Your task to perform on an android device: see sites visited before in the chrome app Image 0: 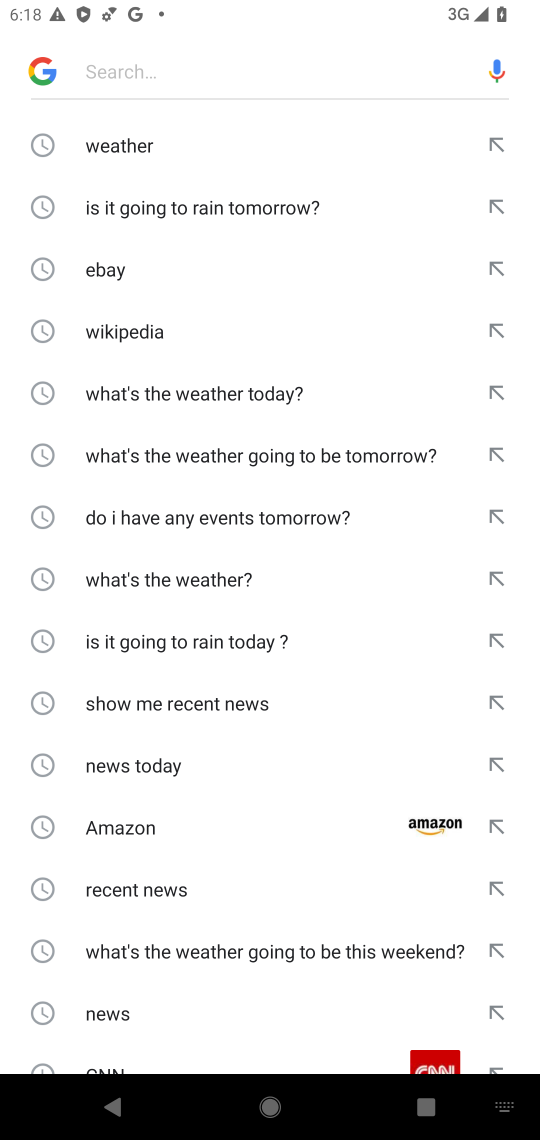
Step 0: press home button
Your task to perform on an android device: see sites visited before in the chrome app Image 1: 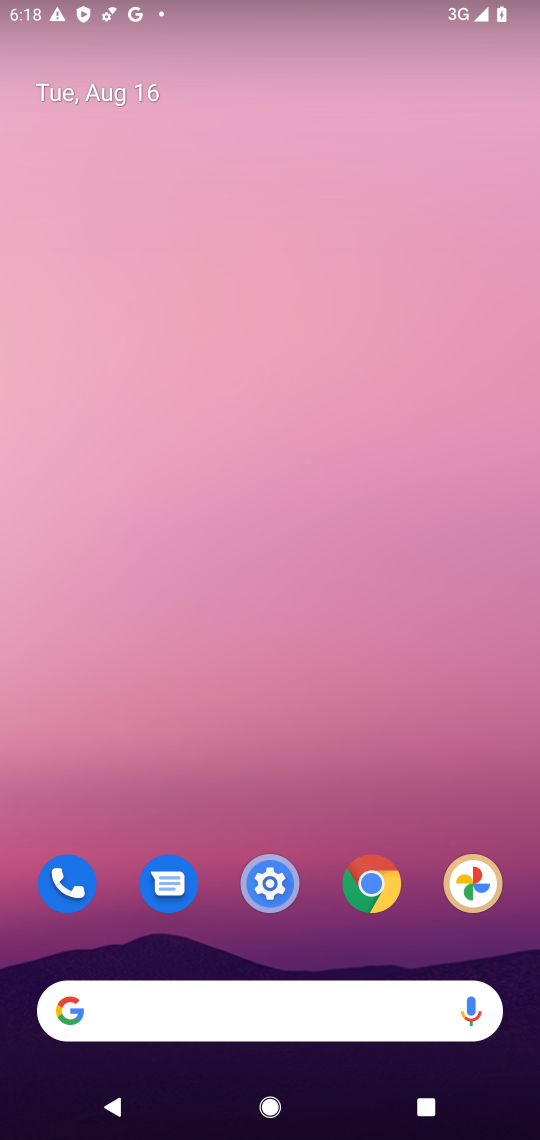
Step 1: click (375, 883)
Your task to perform on an android device: see sites visited before in the chrome app Image 2: 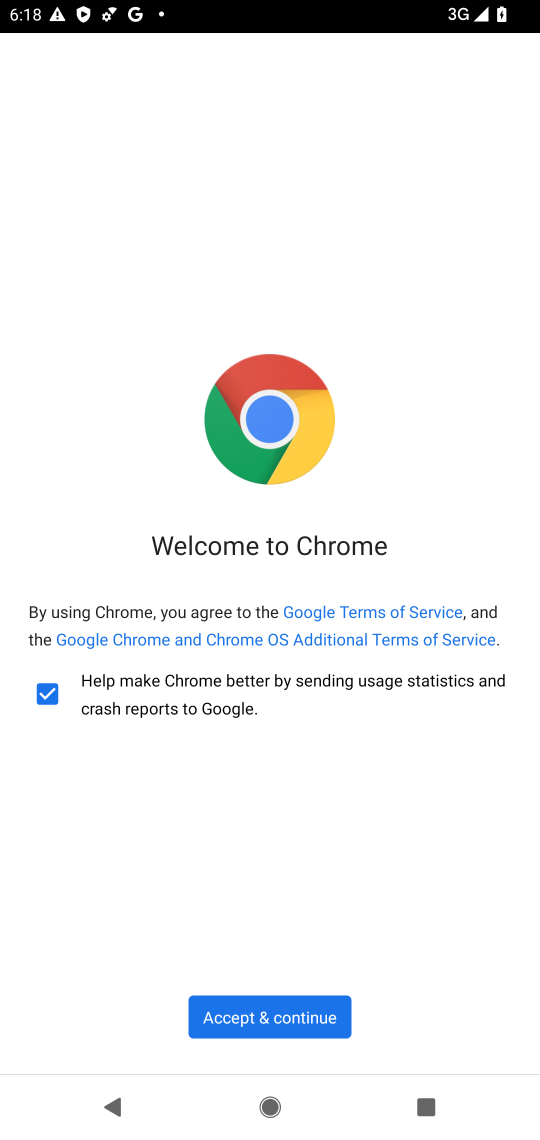
Step 2: click (298, 1027)
Your task to perform on an android device: see sites visited before in the chrome app Image 3: 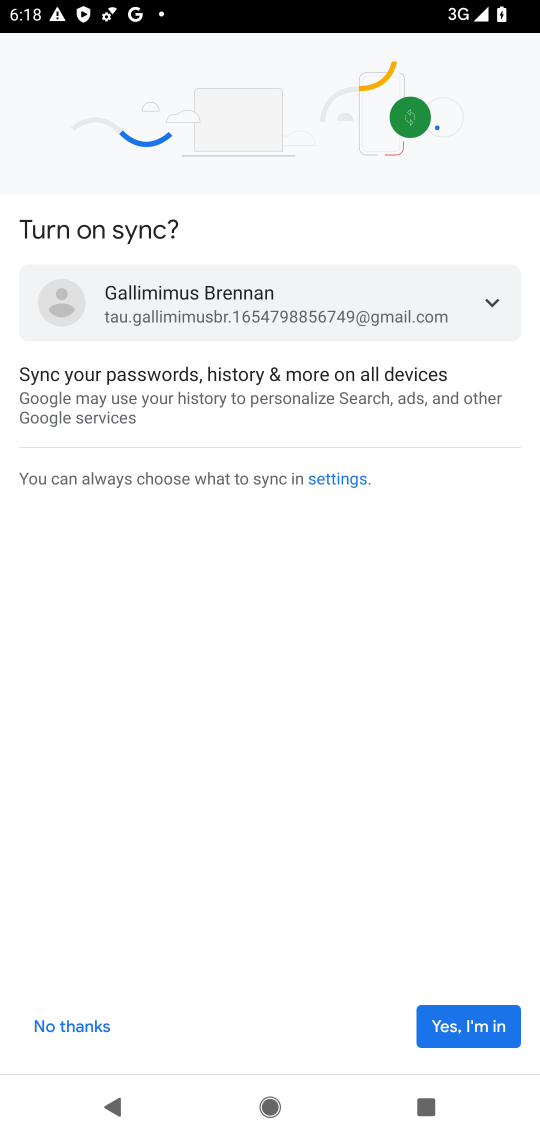
Step 3: click (466, 1024)
Your task to perform on an android device: see sites visited before in the chrome app Image 4: 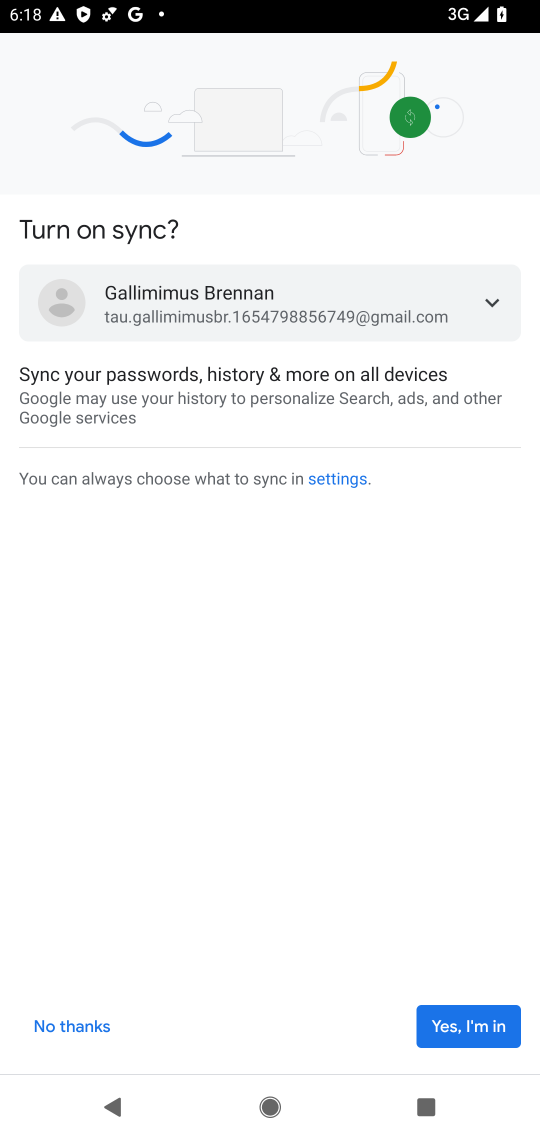
Step 4: click (466, 1024)
Your task to perform on an android device: see sites visited before in the chrome app Image 5: 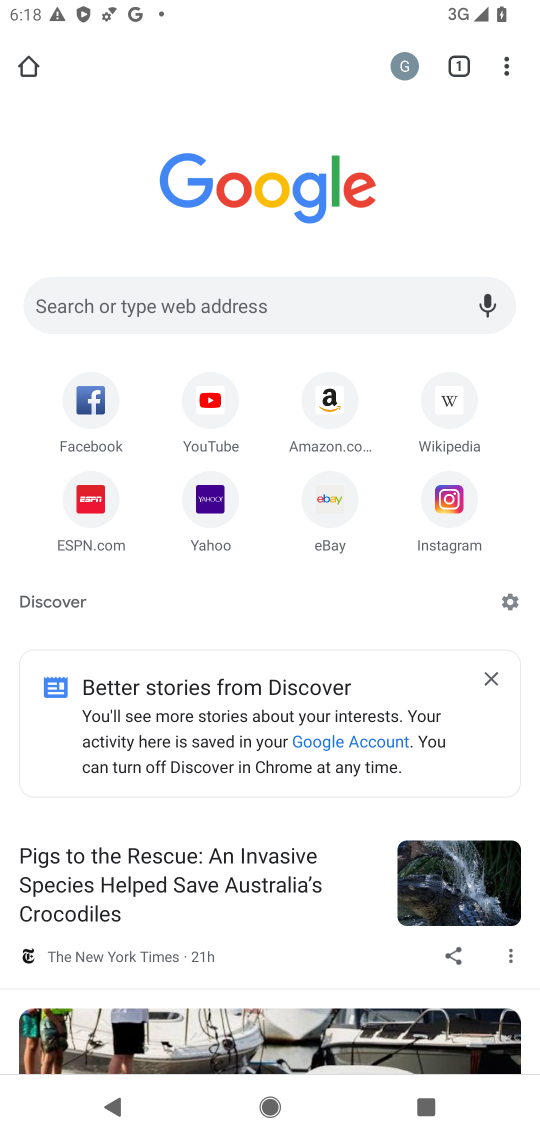
Step 5: click (509, 65)
Your task to perform on an android device: see sites visited before in the chrome app Image 6: 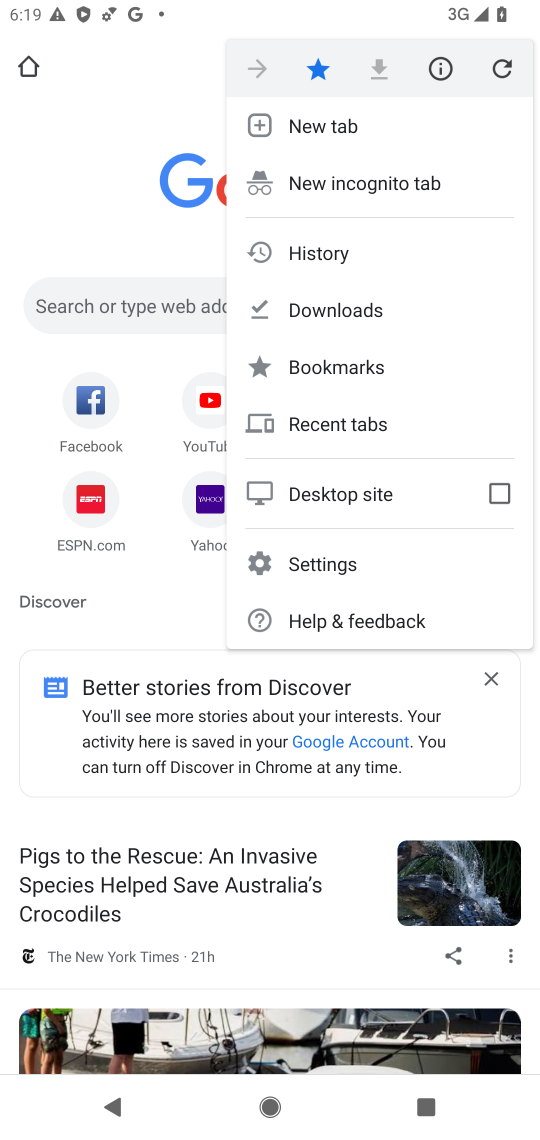
Step 6: click (326, 256)
Your task to perform on an android device: see sites visited before in the chrome app Image 7: 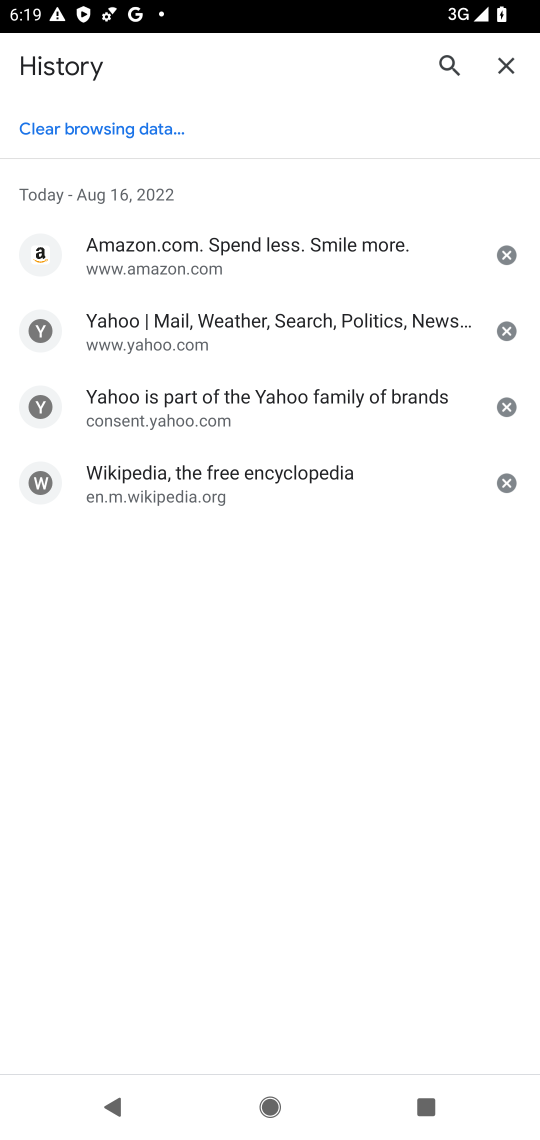
Step 7: task complete